Your task to perform on an android device: turn off smart reply in the gmail app Image 0: 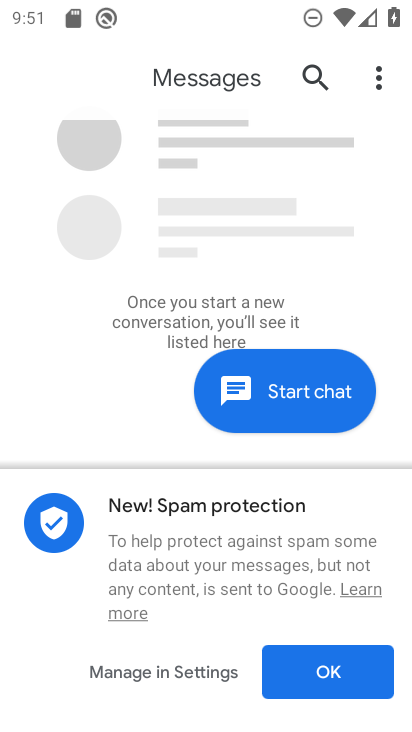
Step 0: press home button
Your task to perform on an android device: turn off smart reply in the gmail app Image 1: 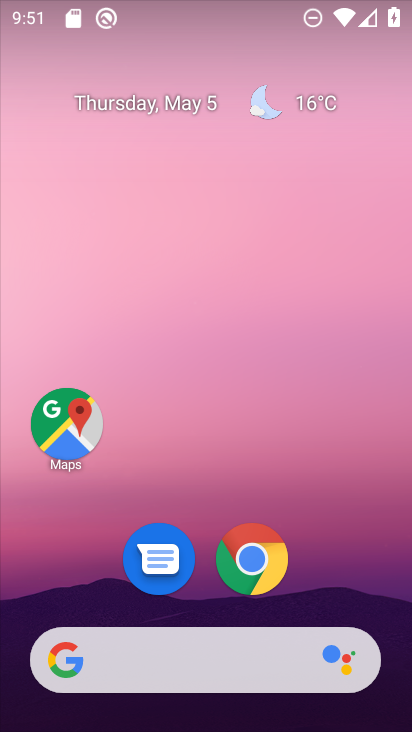
Step 1: drag from (366, 628) to (359, 33)
Your task to perform on an android device: turn off smart reply in the gmail app Image 2: 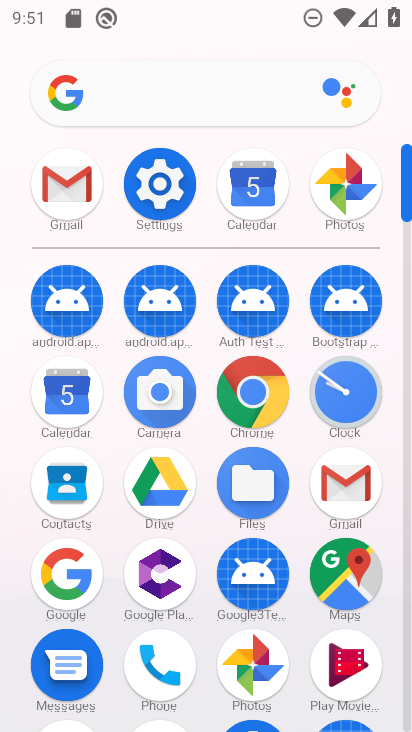
Step 2: click (62, 194)
Your task to perform on an android device: turn off smart reply in the gmail app Image 3: 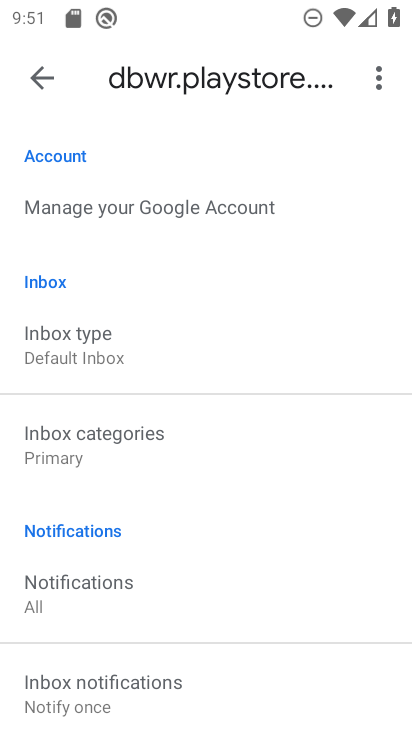
Step 3: drag from (228, 527) to (178, 29)
Your task to perform on an android device: turn off smart reply in the gmail app Image 4: 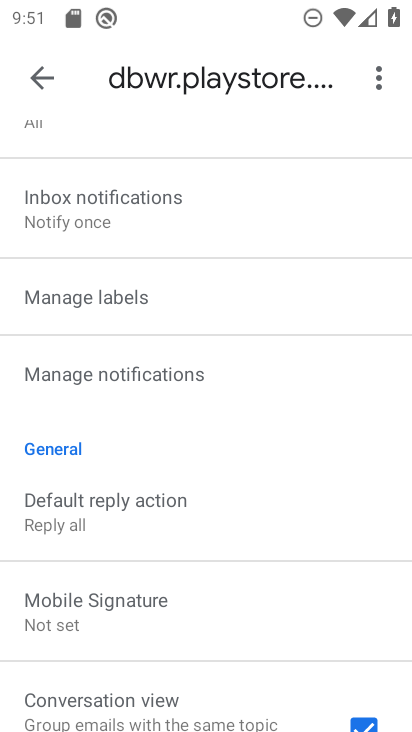
Step 4: drag from (175, 631) to (201, 121)
Your task to perform on an android device: turn off smart reply in the gmail app Image 5: 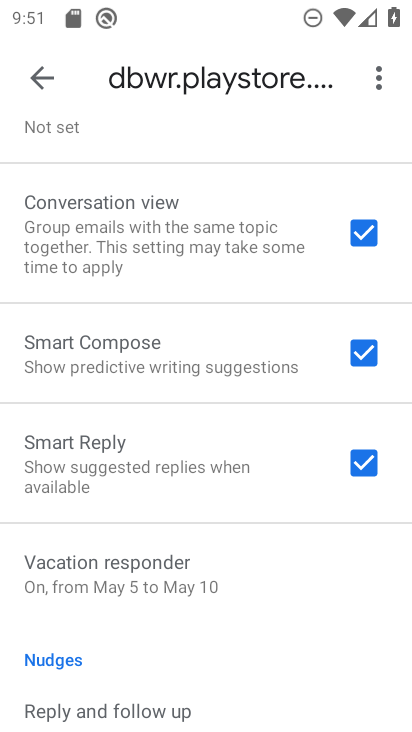
Step 5: click (369, 464)
Your task to perform on an android device: turn off smart reply in the gmail app Image 6: 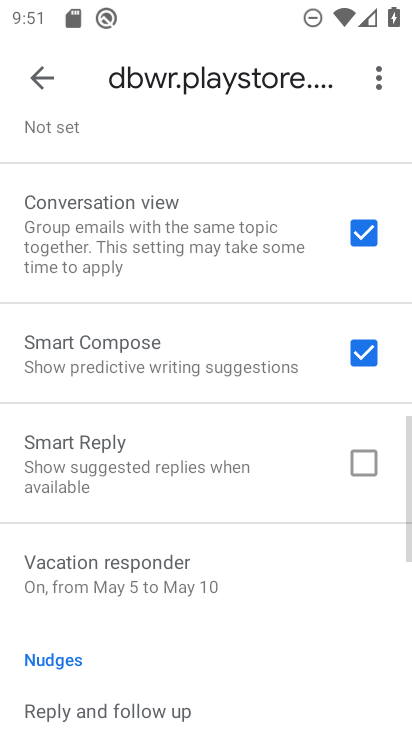
Step 6: task complete